Your task to perform on an android device: Open Google Chrome and open the bookmarks view Image 0: 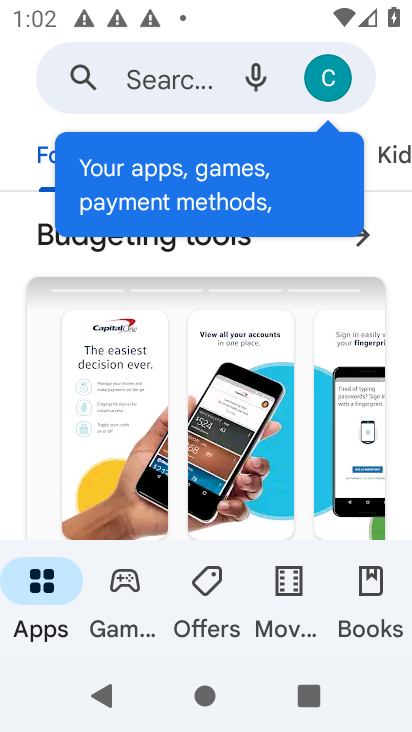
Step 0: press home button
Your task to perform on an android device: Open Google Chrome and open the bookmarks view Image 1: 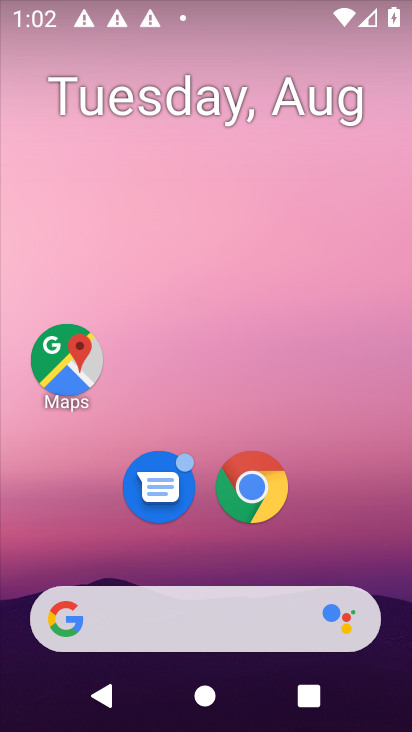
Step 1: drag from (162, 622) to (152, 358)
Your task to perform on an android device: Open Google Chrome and open the bookmarks view Image 2: 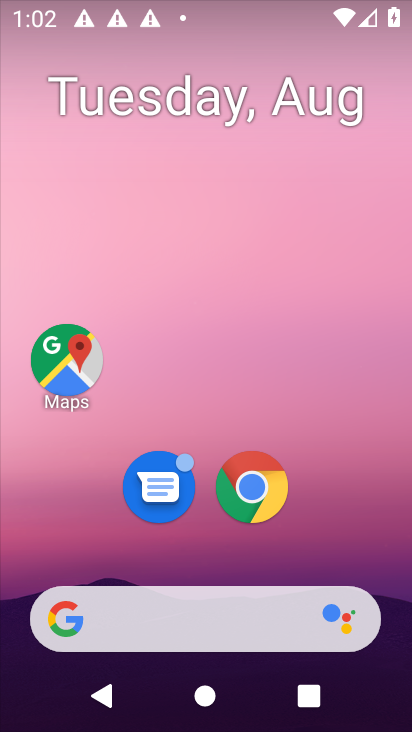
Step 2: drag from (225, 602) to (279, 42)
Your task to perform on an android device: Open Google Chrome and open the bookmarks view Image 3: 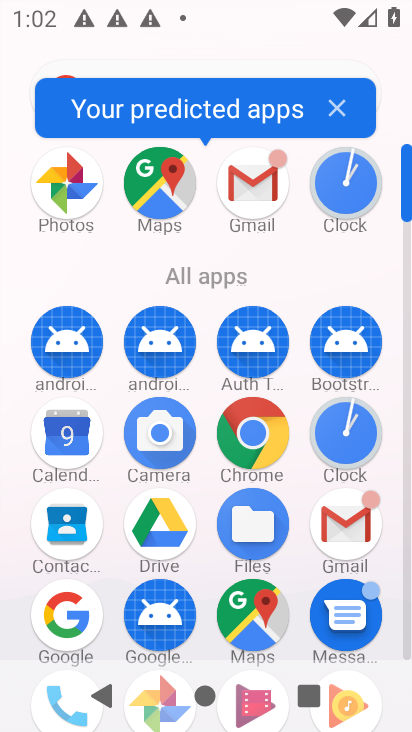
Step 3: click (264, 429)
Your task to perform on an android device: Open Google Chrome and open the bookmarks view Image 4: 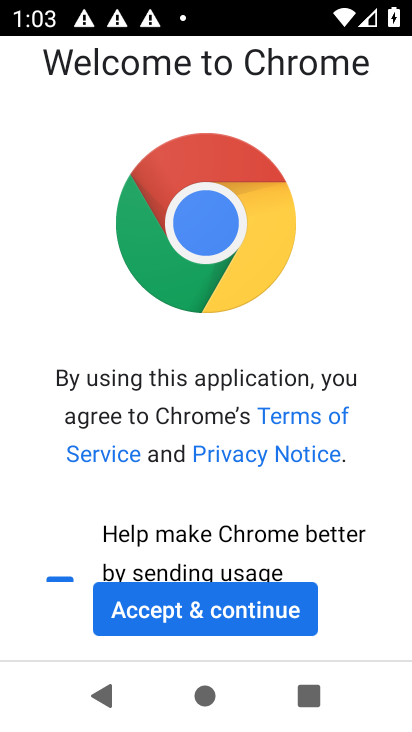
Step 4: click (194, 606)
Your task to perform on an android device: Open Google Chrome and open the bookmarks view Image 5: 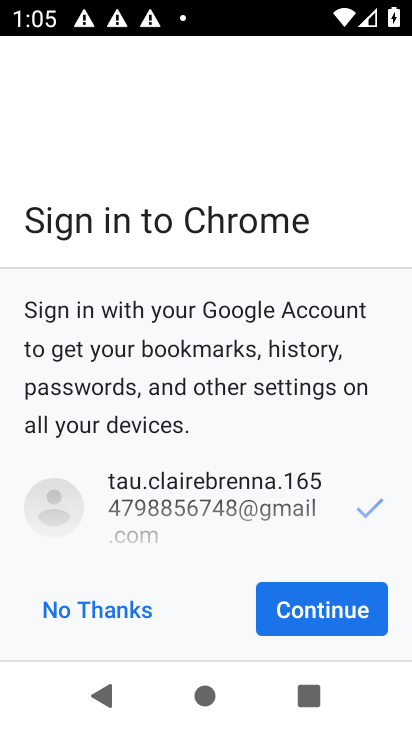
Step 5: click (353, 608)
Your task to perform on an android device: Open Google Chrome and open the bookmarks view Image 6: 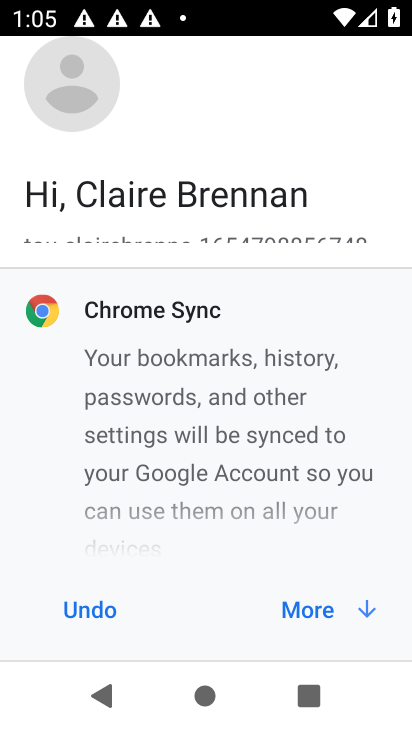
Step 6: click (101, 612)
Your task to perform on an android device: Open Google Chrome and open the bookmarks view Image 7: 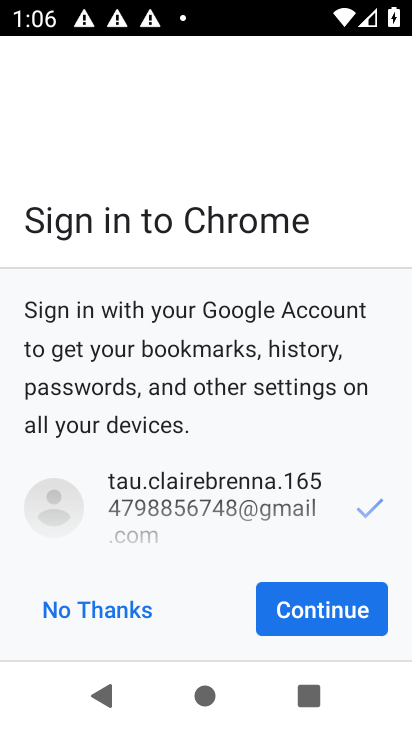
Step 7: click (338, 593)
Your task to perform on an android device: Open Google Chrome and open the bookmarks view Image 8: 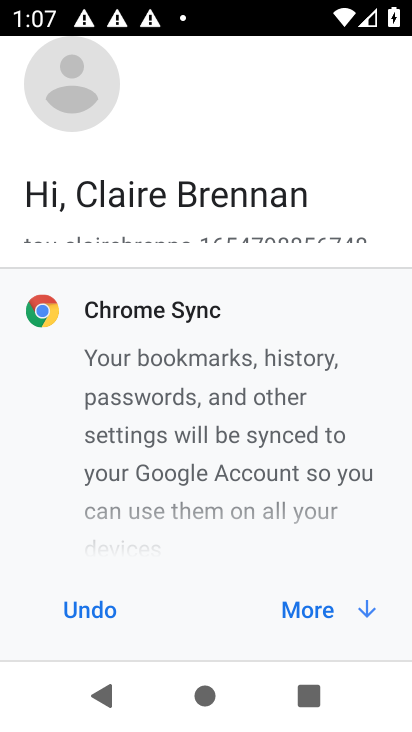
Step 8: click (76, 605)
Your task to perform on an android device: Open Google Chrome and open the bookmarks view Image 9: 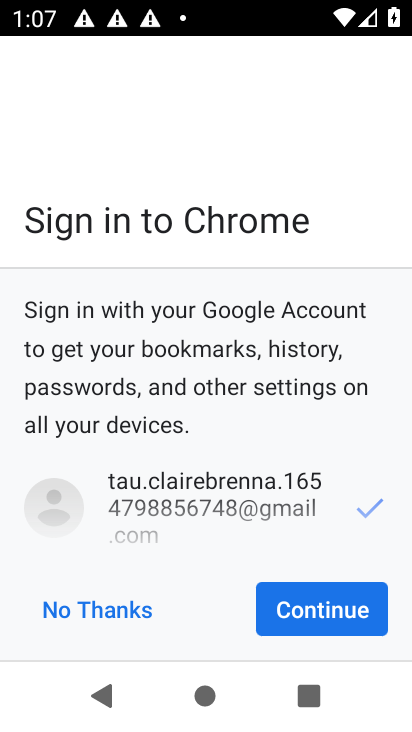
Step 9: click (83, 618)
Your task to perform on an android device: Open Google Chrome and open the bookmarks view Image 10: 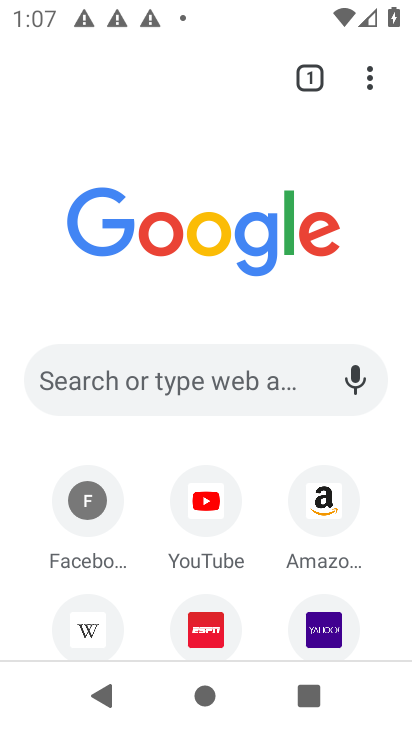
Step 10: task complete